Your task to perform on an android device: open app "Venmo" (install if not already installed) Image 0: 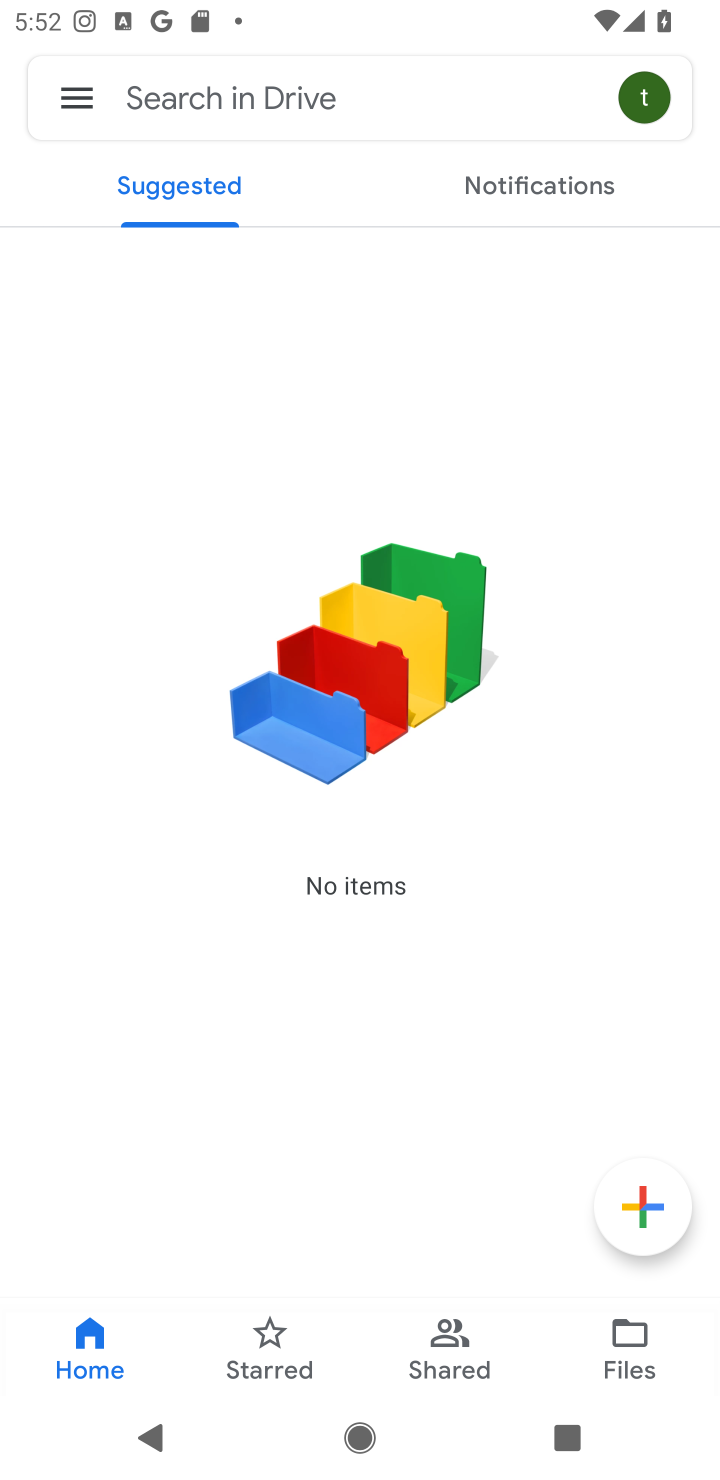
Step 0: press home button
Your task to perform on an android device: open app "Venmo" (install if not already installed) Image 1: 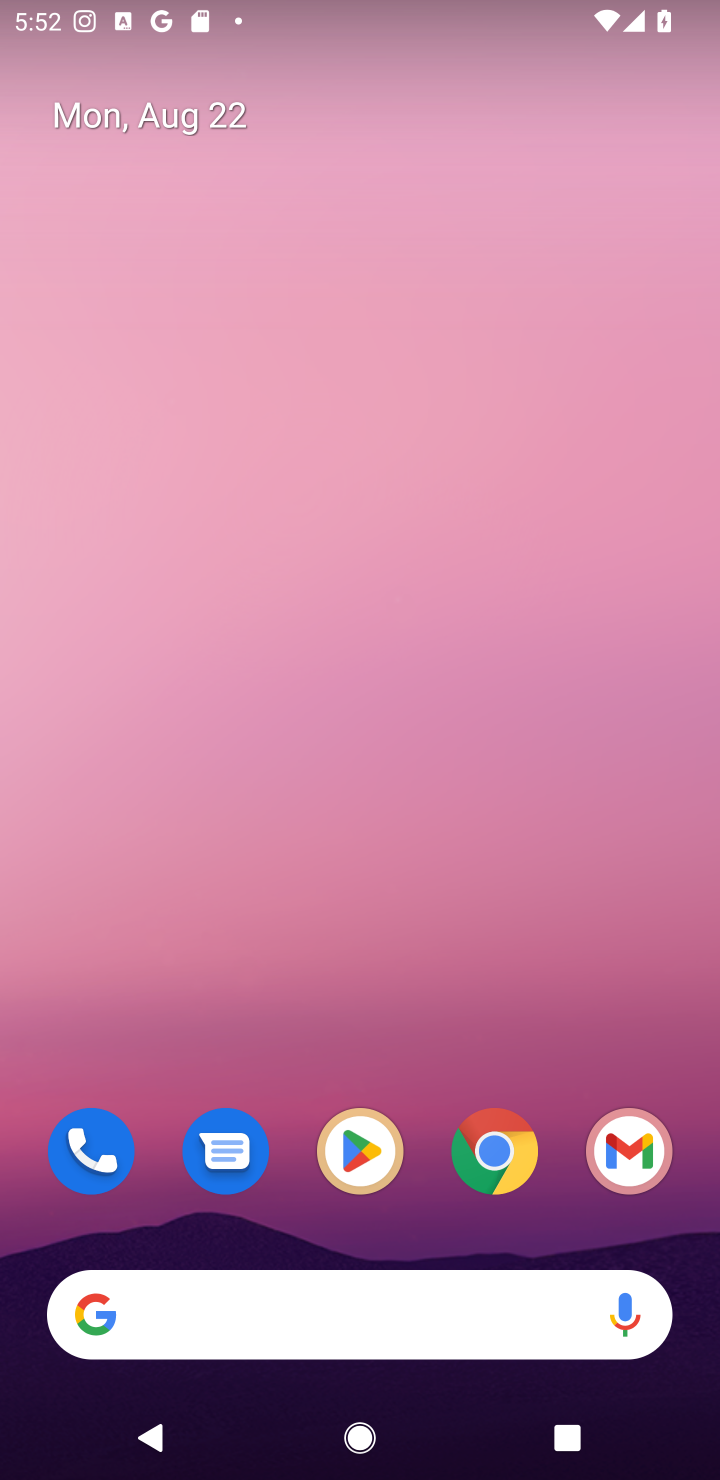
Step 1: click (360, 1140)
Your task to perform on an android device: open app "Venmo" (install if not already installed) Image 2: 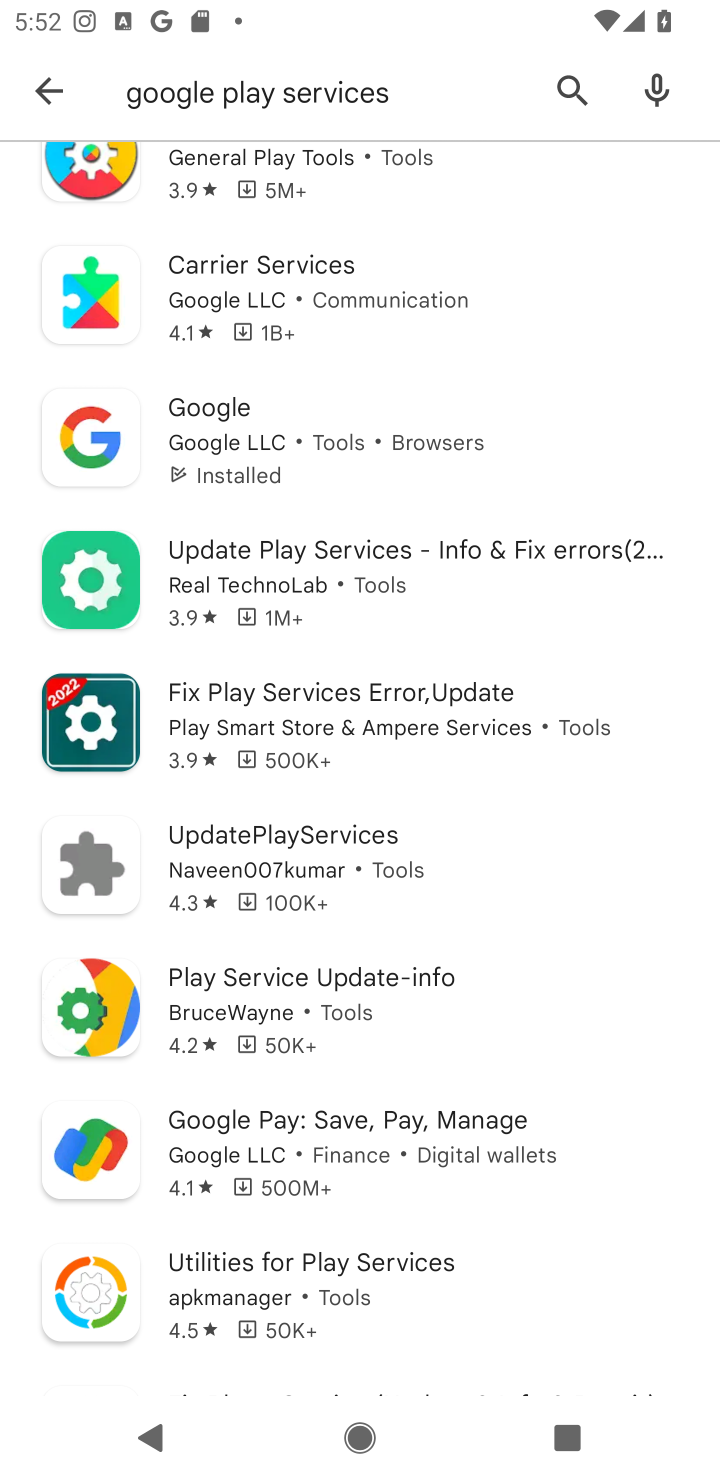
Step 2: click (557, 85)
Your task to perform on an android device: open app "Venmo" (install if not already installed) Image 3: 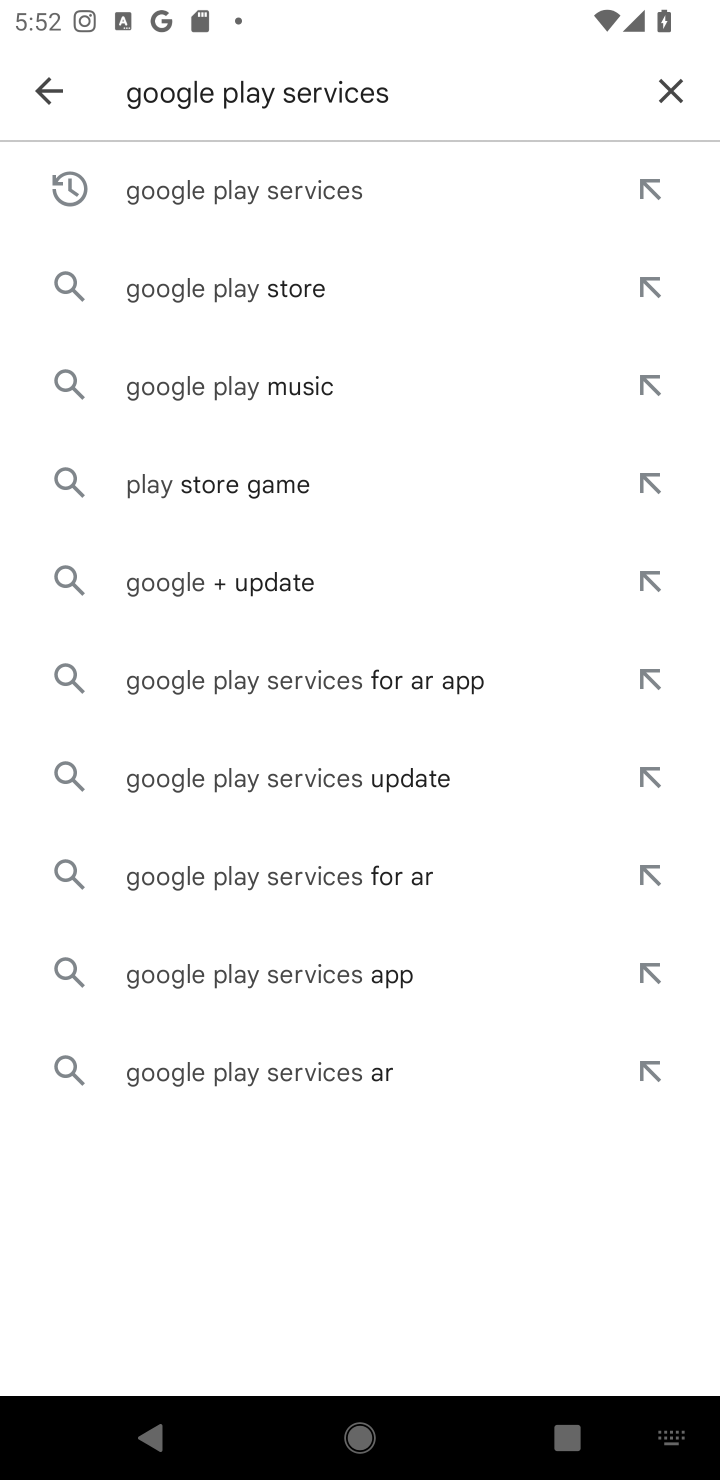
Step 3: click (667, 73)
Your task to perform on an android device: open app "Venmo" (install if not already installed) Image 4: 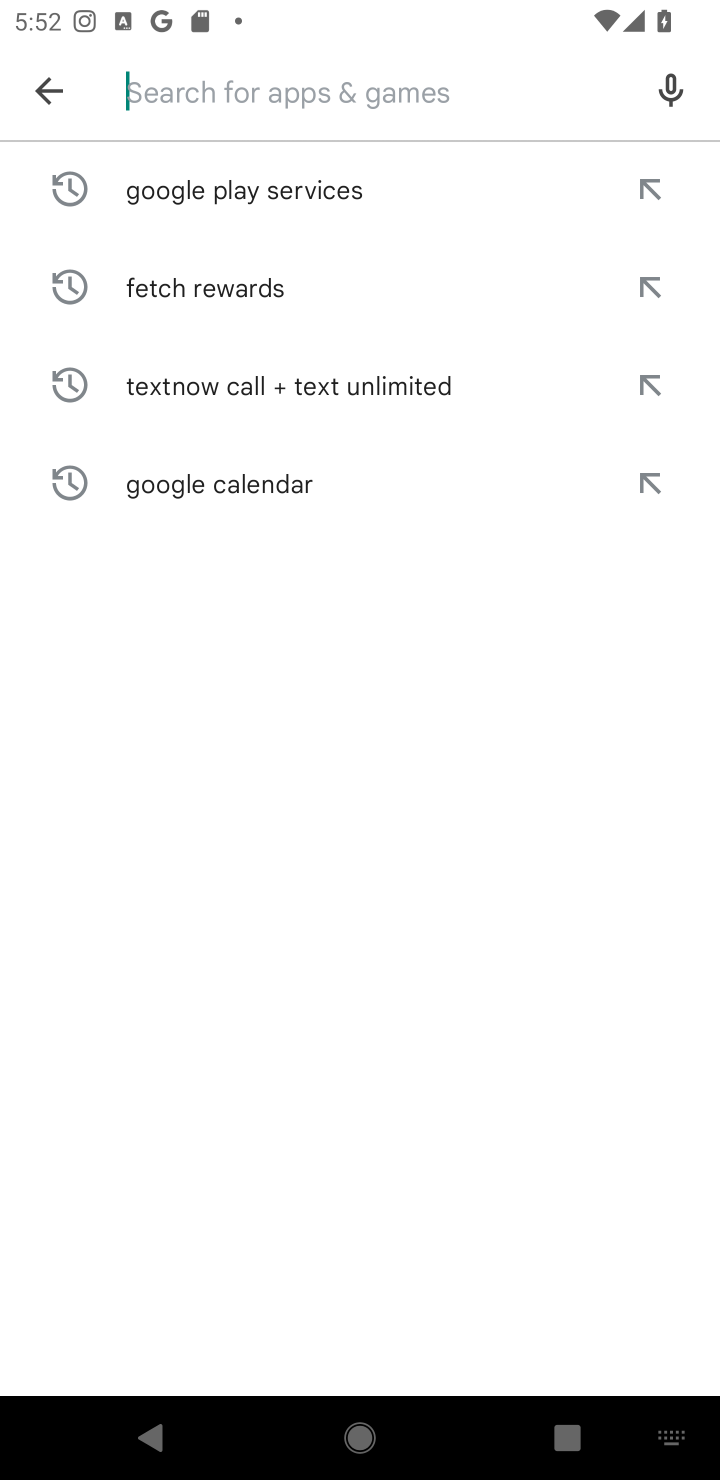
Step 4: type "Venmo"
Your task to perform on an android device: open app "Venmo" (install if not already installed) Image 5: 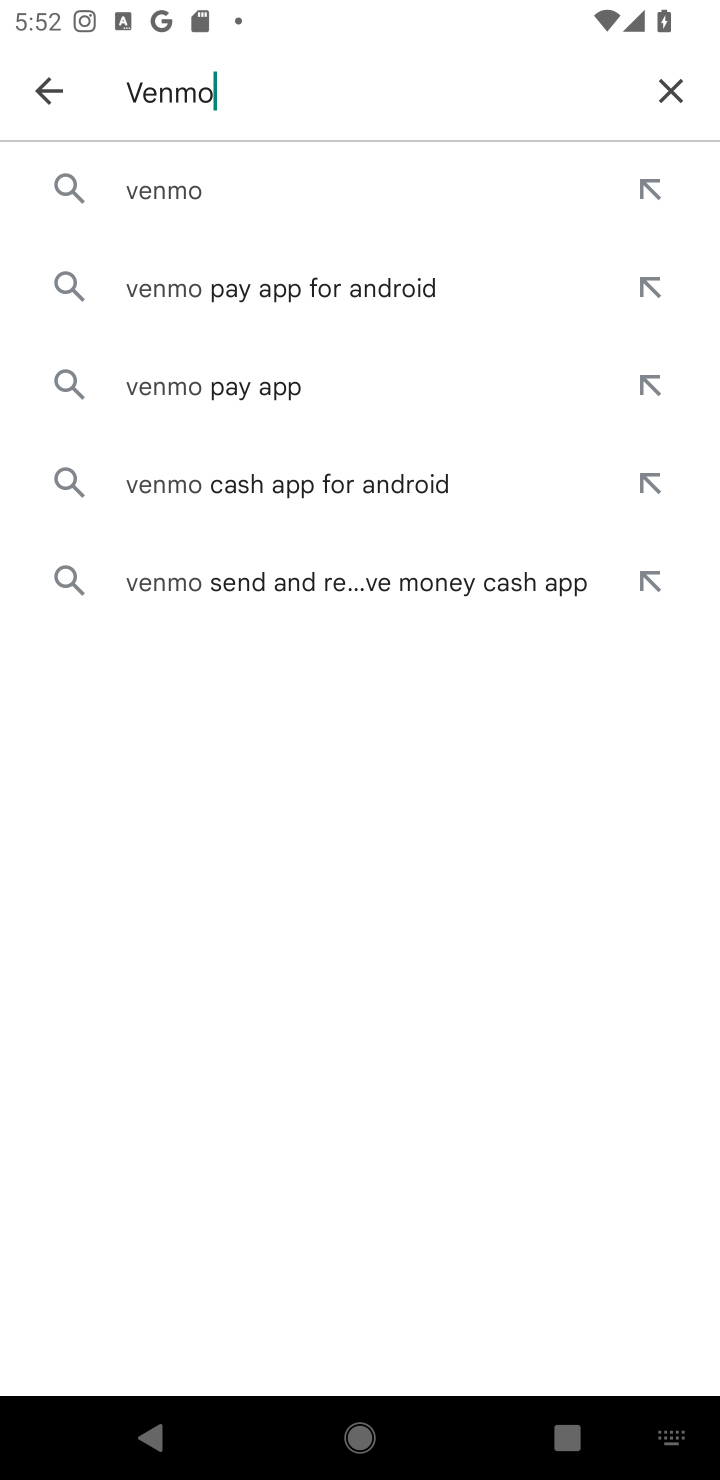
Step 5: click (183, 179)
Your task to perform on an android device: open app "Venmo" (install if not already installed) Image 6: 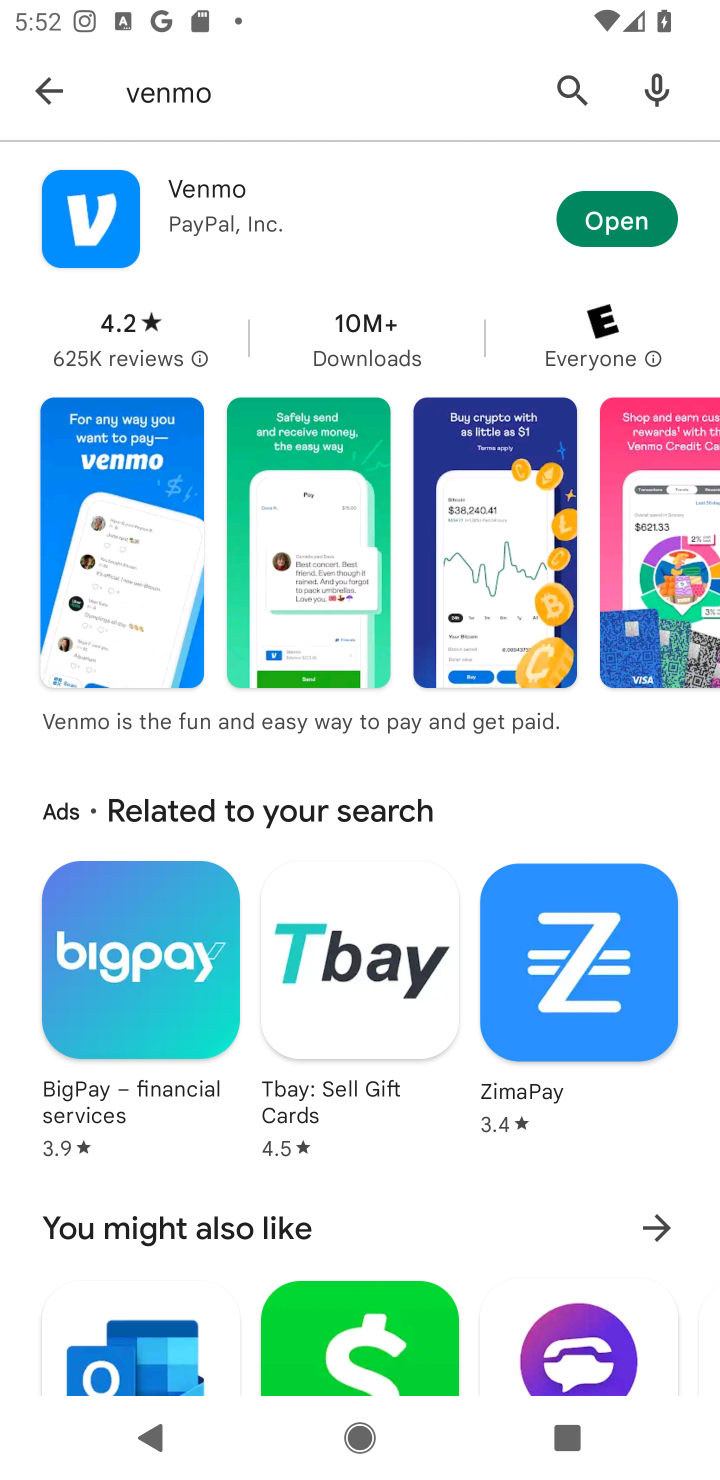
Step 6: click (624, 226)
Your task to perform on an android device: open app "Venmo" (install if not already installed) Image 7: 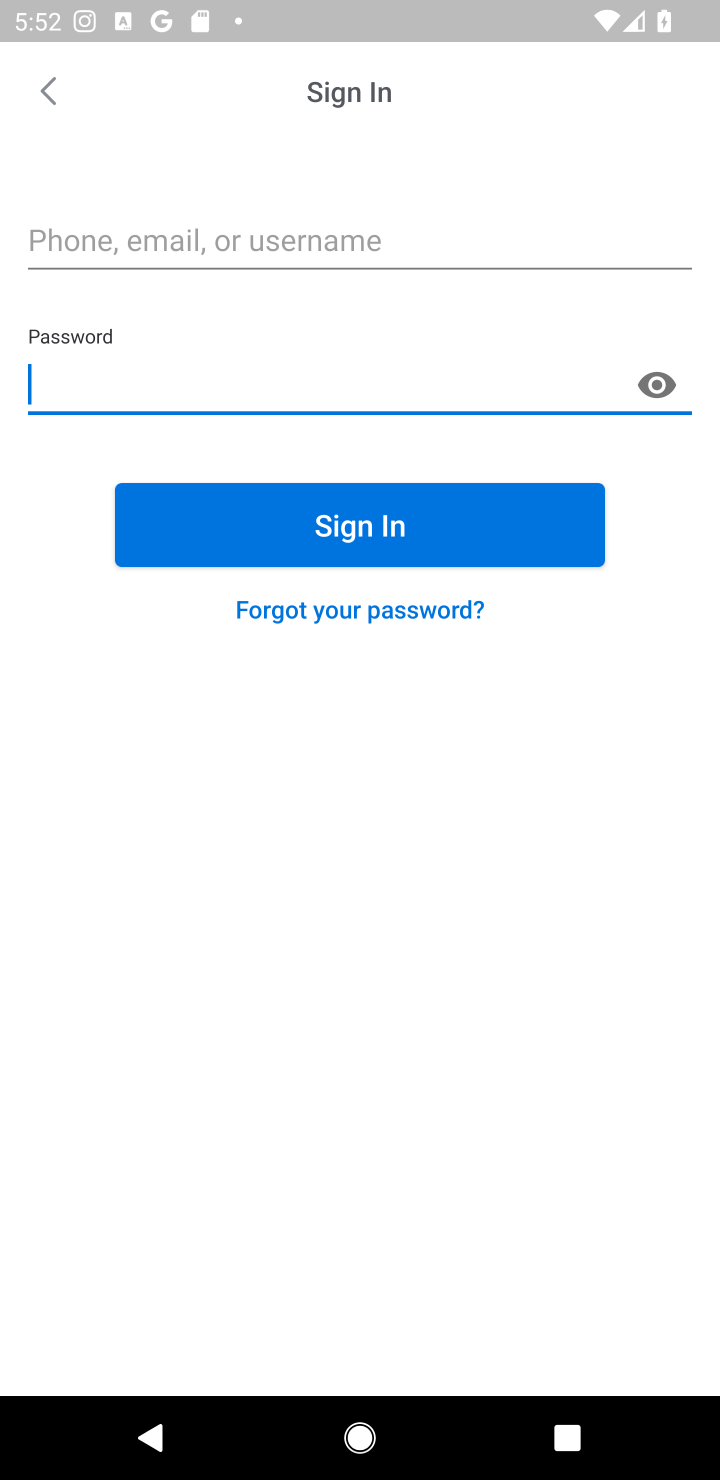
Step 7: task complete